Your task to perform on an android device: What's the weather going to be this weekend? Image 0: 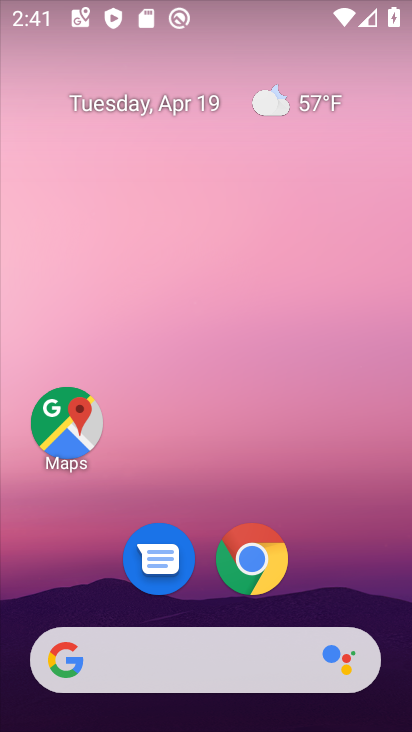
Step 0: drag from (204, 542) to (231, 192)
Your task to perform on an android device: What's the weather going to be this weekend? Image 1: 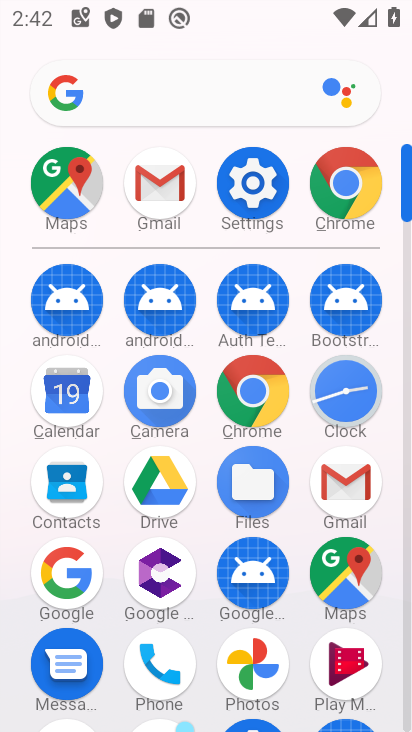
Step 1: drag from (239, 576) to (246, 708)
Your task to perform on an android device: What's the weather going to be this weekend? Image 2: 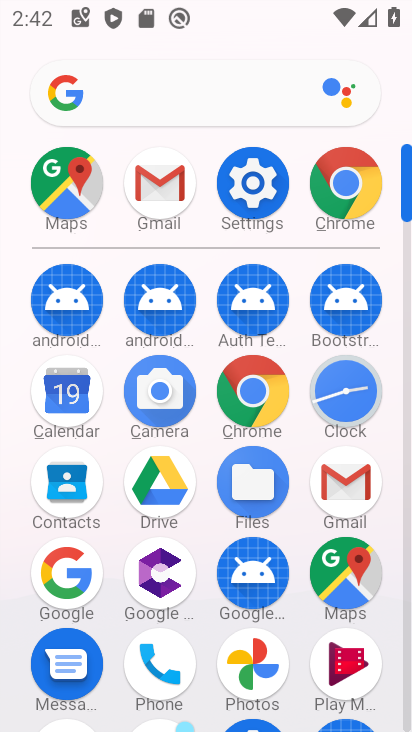
Step 2: press back button
Your task to perform on an android device: What's the weather going to be this weekend? Image 3: 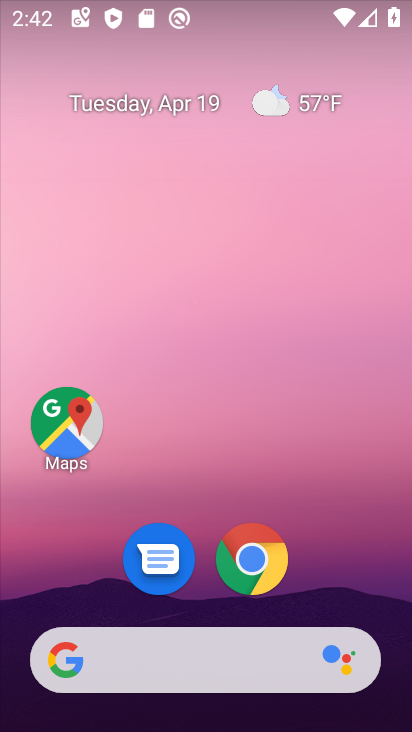
Step 3: click (265, 104)
Your task to perform on an android device: What's the weather going to be this weekend? Image 4: 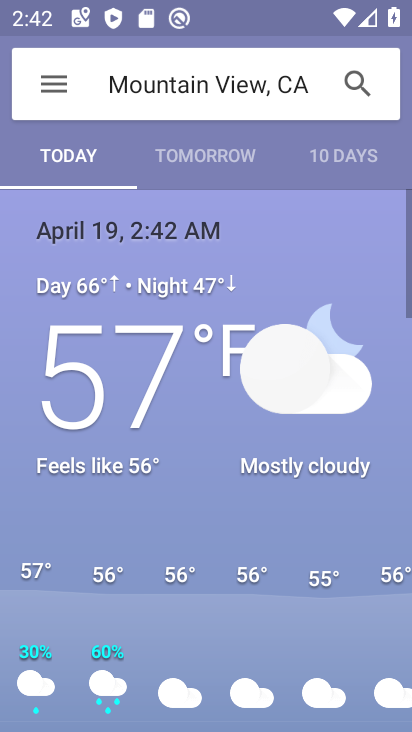
Step 4: click (343, 159)
Your task to perform on an android device: What's the weather going to be this weekend? Image 5: 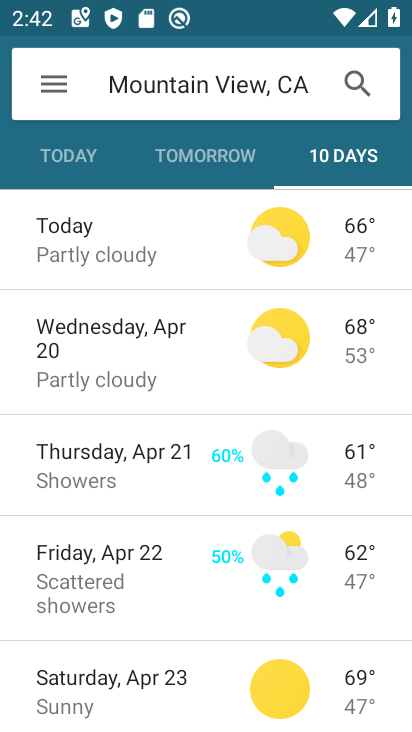
Step 5: task complete